Your task to perform on an android device: open app "Grab" (install if not already installed) and go to login screen Image 0: 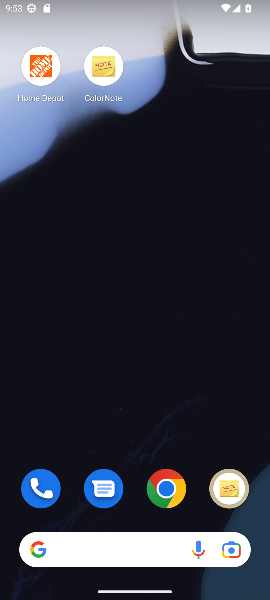
Step 0: drag from (131, 401) to (134, 123)
Your task to perform on an android device: open app "Grab" (install if not already installed) and go to login screen Image 1: 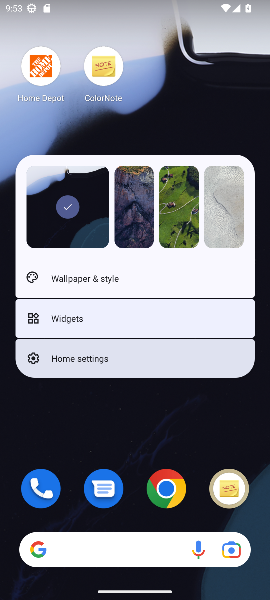
Step 1: click (131, 509)
Your task to perform on an android device: open app "Grab" (install if not already installed) and go to login screen Image 2: 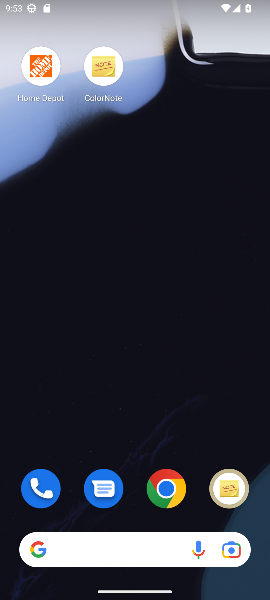
Step 2: drag from (128, 436) to (134, 77)
Your task to perform on an android device: open app "Grab" (install if not already installed) and go to login screen Image 3: 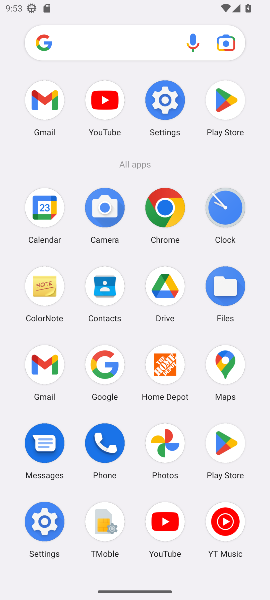
Step 3: click (222, 96)
Your task to perform on an android device: open app "Grab" (install if not already installed) and go to login screen Image 4: 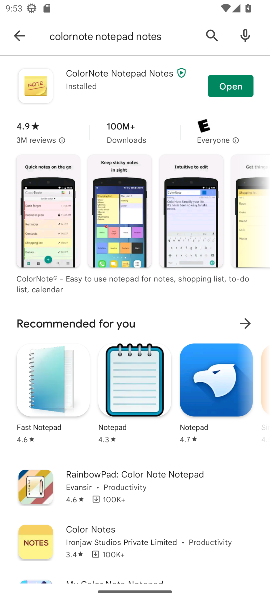
Step 4: click (13, 33)
Your task to perform on an android device: open app "Grab" (install if not already installed) and go to login screen Image 5: 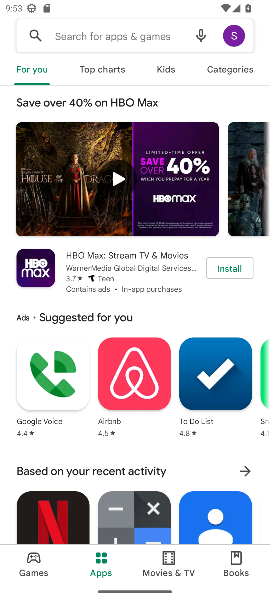
Step 5: click (109, 34)
Your task to perform on an android device: open app "Grab" (install if not already installed) and go to login screen Image 6: 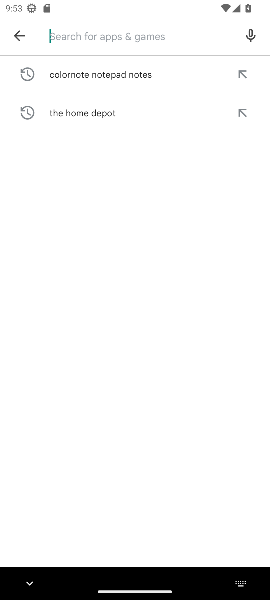
Step 6: type "Grab"
Your task to perform on an android device: open app "Grab" (install if not already installed) and go to login screen Image 7: 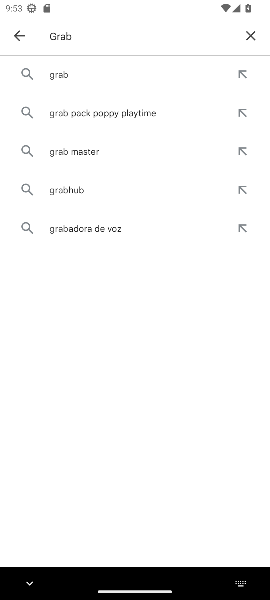
Step 7: type ""
Your task to perform on an android device: open app "Grab" (install if not already installed) and go to login screen Image 8: 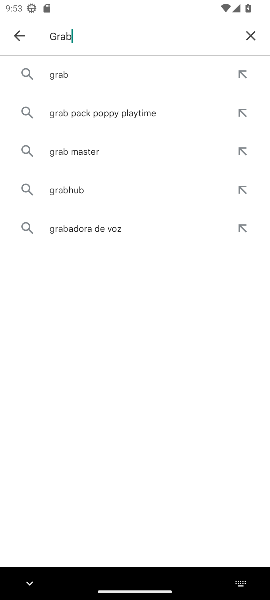
Step 8: click (64, 69)
Your task to perform on an android device: open app "Grab" (install if not already installed) and go to login screen Image 9: 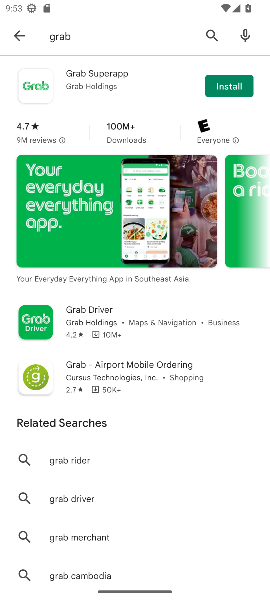
Step 9: click (218, 88)
Your task to perform on an android device: open app "Grab" (install if not already installed) and go to login screen Image 10: 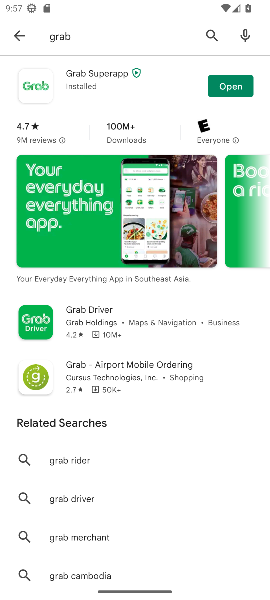
Step 10: click (227, 75)
Your task to perform on an android device: open app "Grab" (install if not already installed) and go to login screen Image 11: 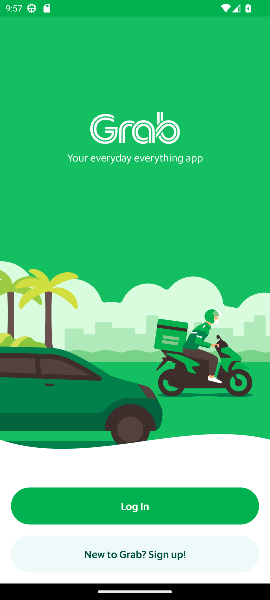
Step 11: task complete